Your task to perform on an android device: open device folders in google photos Image 0: 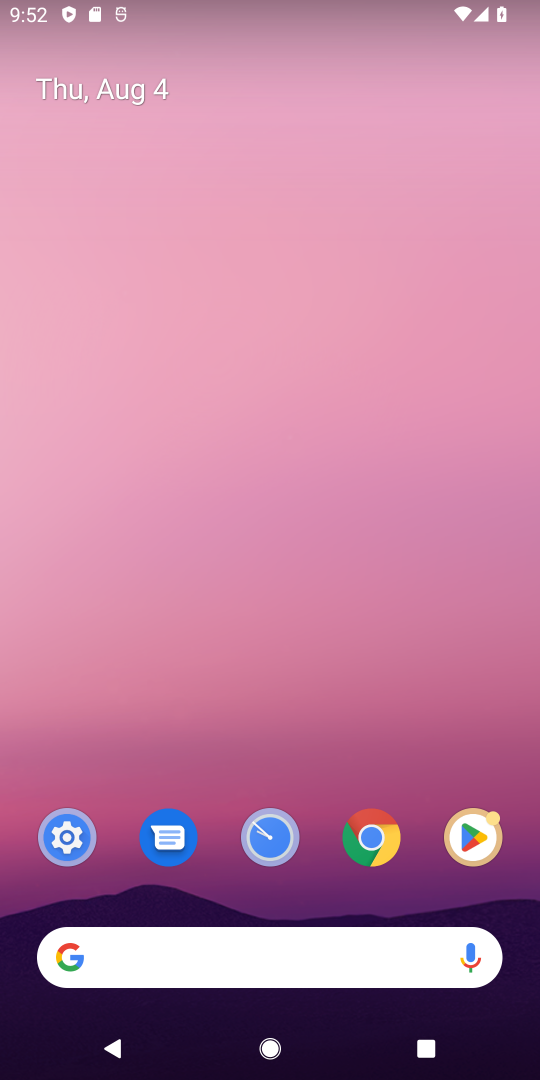
Step 0: press home button
Your task to perform on an android device: open device folders in google photos Image 1: 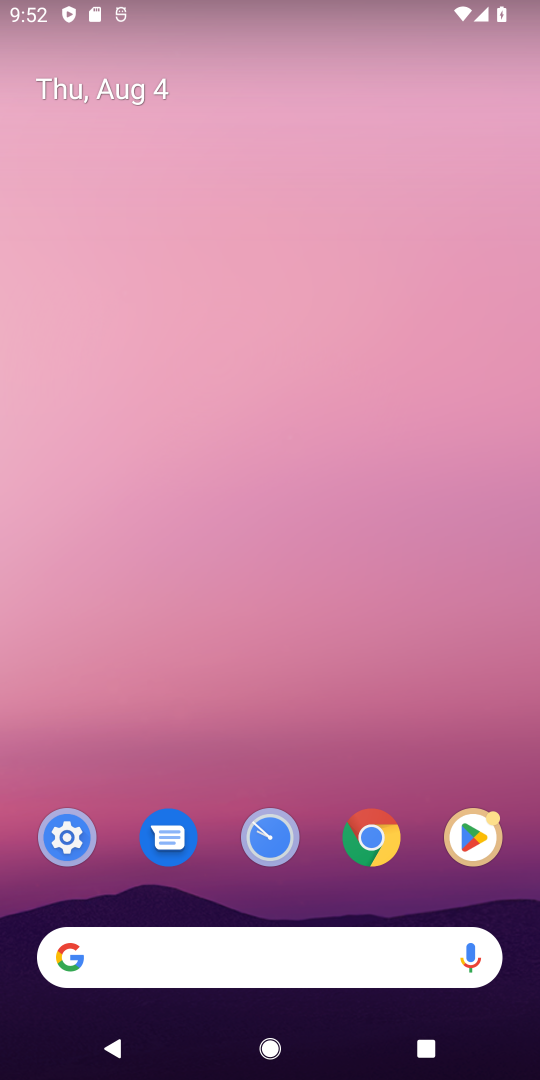
Step 1: press home button
Your task to perform on an android device: open device folders in google photos Image 2: 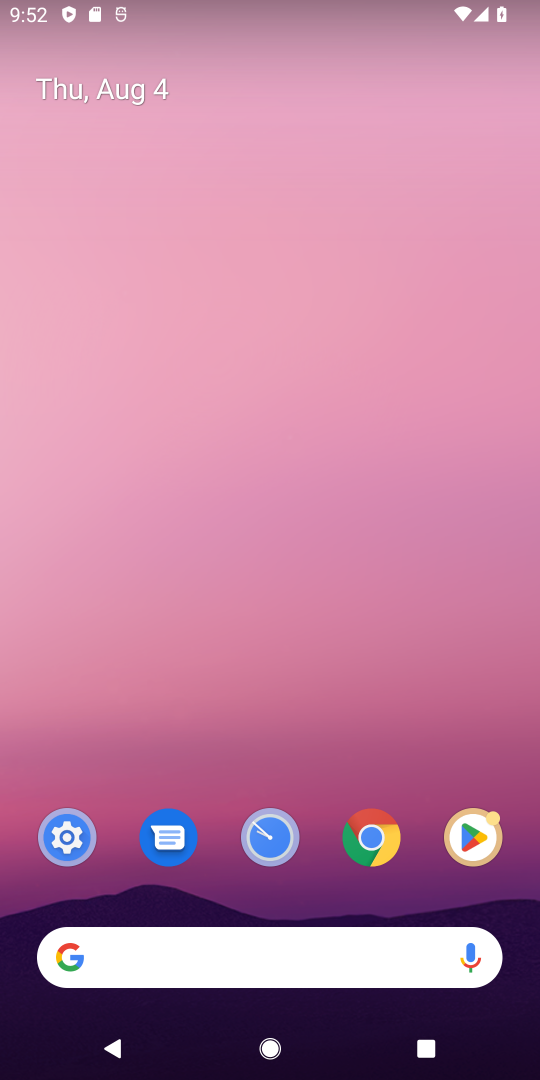
Step 2: drag from (318, 891) to (376, 115)
Your task to perform on an android device: open device folders in google photos Image 3: 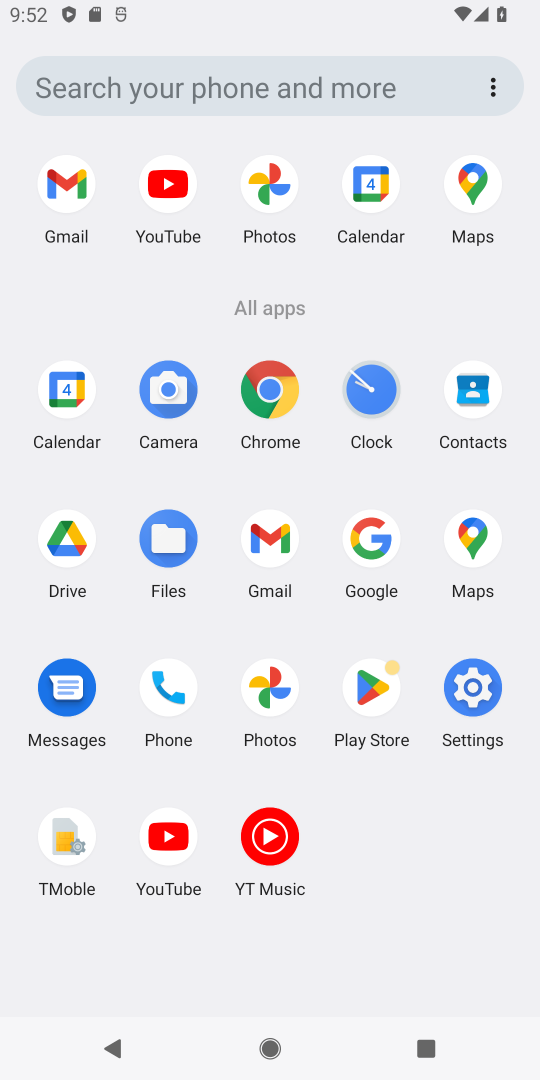
Step 3: click (266, 679)
Your task to perform on an android device: open device folders in google photos Image 4: 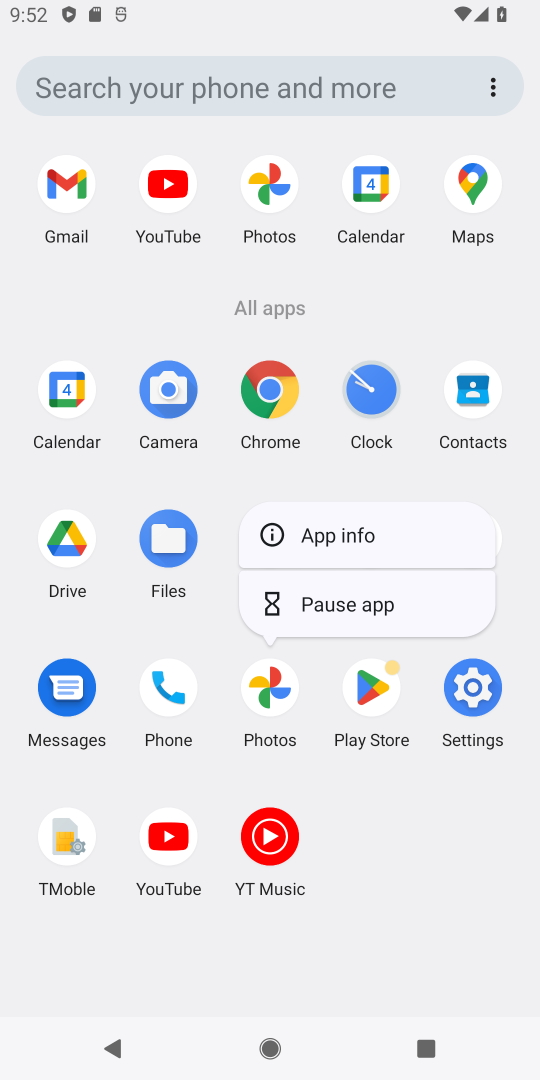
Step 4: click (269, 692)
Your task to perform on an android device: open device folders in google photos Image 5: 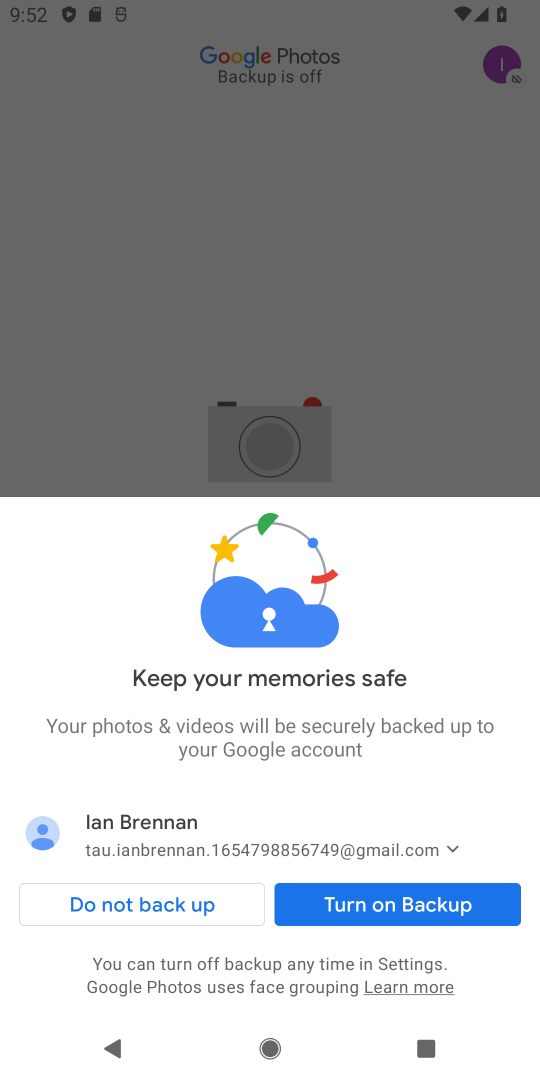
Step 5: click (380, 905)
Your task to perform on an android device: open device folders in google photos Image 6: 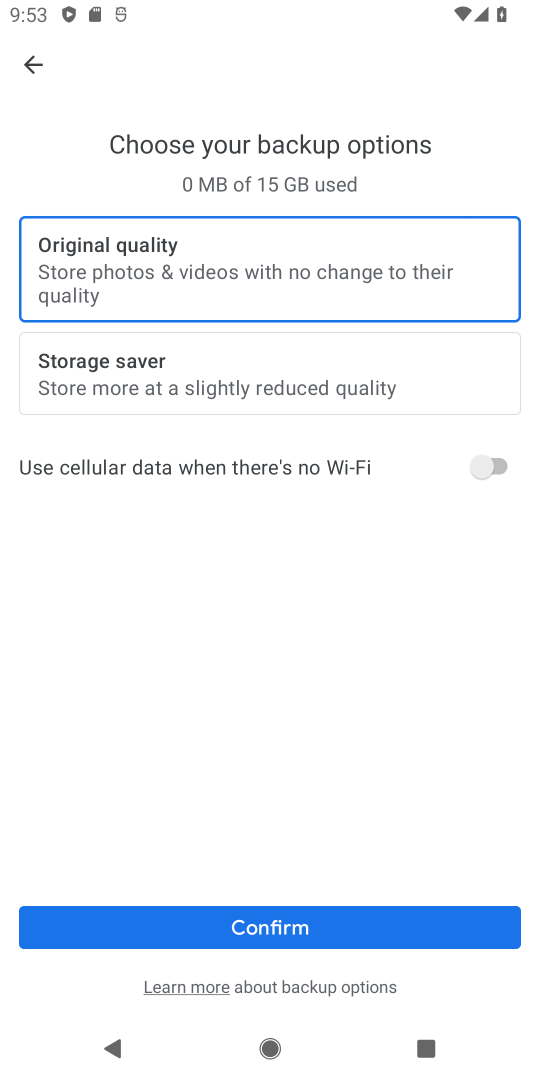
Step 6: click (292, 930)
Your task to perform on an android device: open device folders in google photos Image 7: 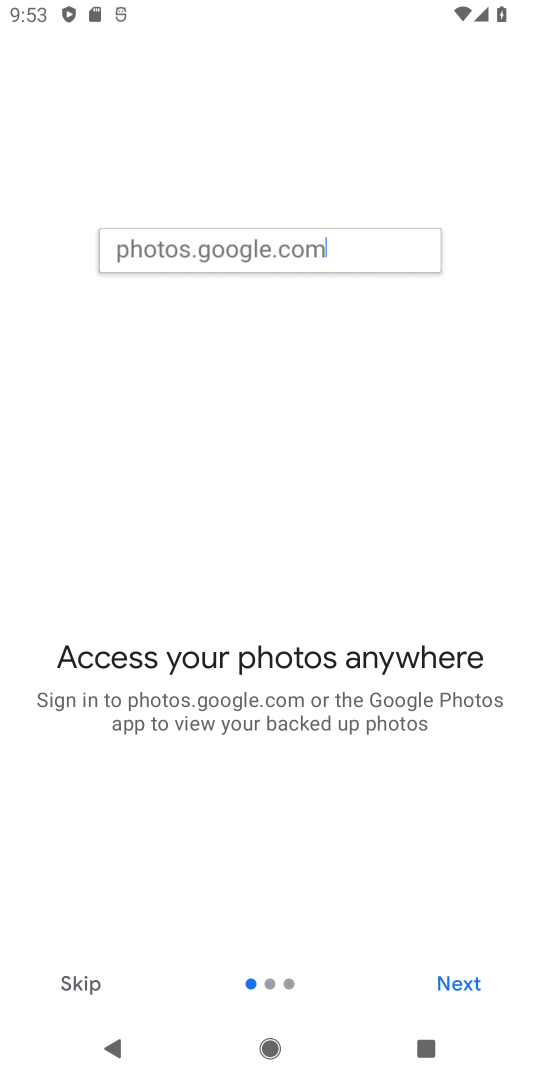
Step 7: click (71, 982)
Your task to perform on an android device: open device folders in google photos Image 8: 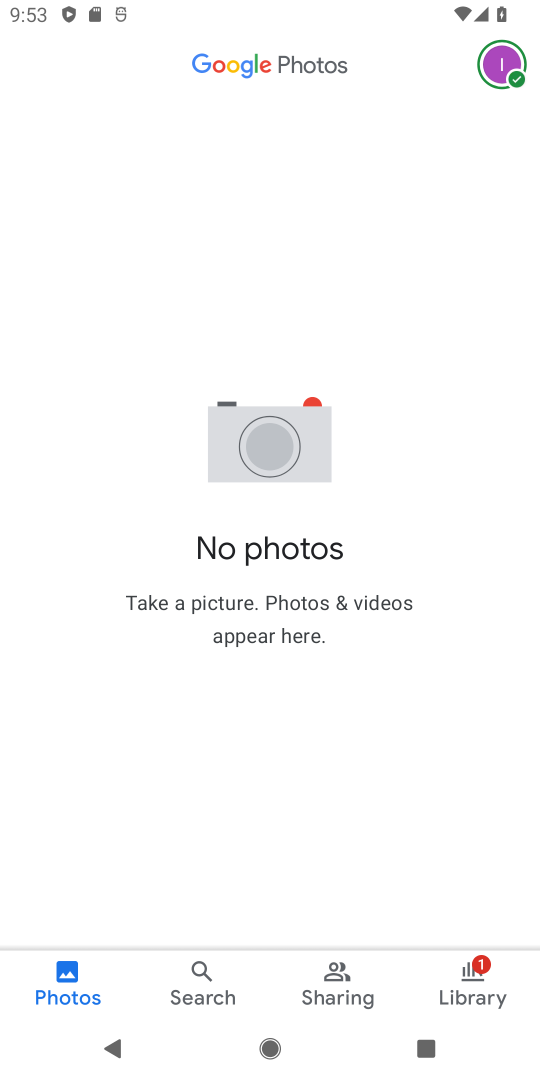
Step 8: click (197, 976)
Your task to perform on an android device: open device folders in google photos Image 9: 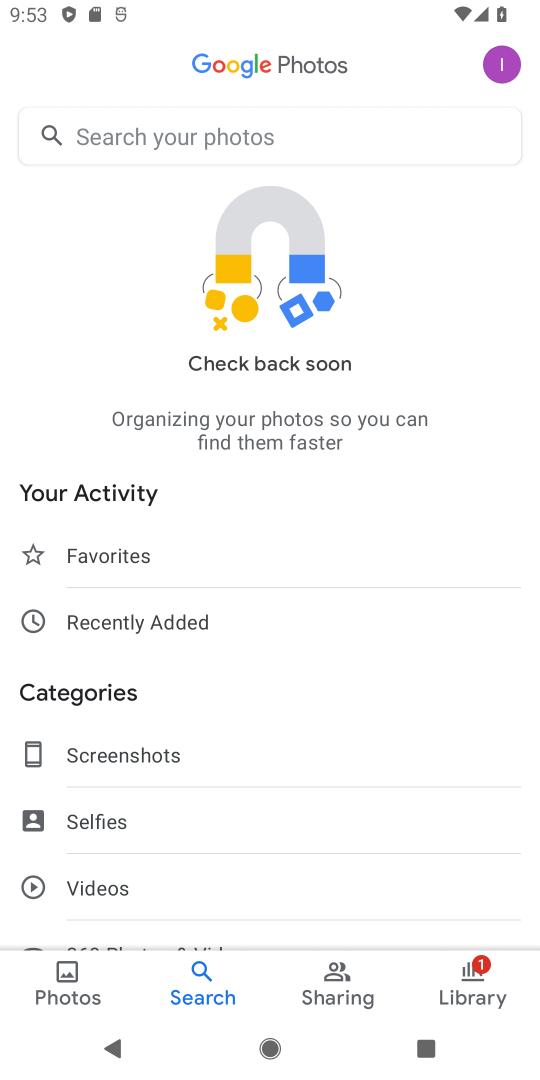
Step 9: click (130, 128)
Your task to perform on an android device: open device folders in google photos Image 10: 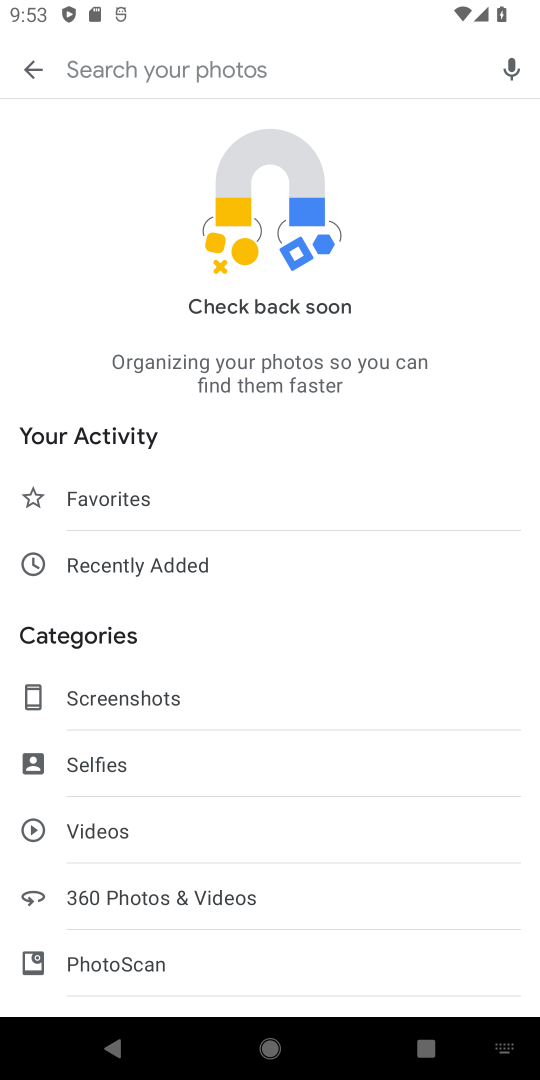
Step 10: type "device folders"
Your task to perform on an android device: open device folders in google photos Image 11: 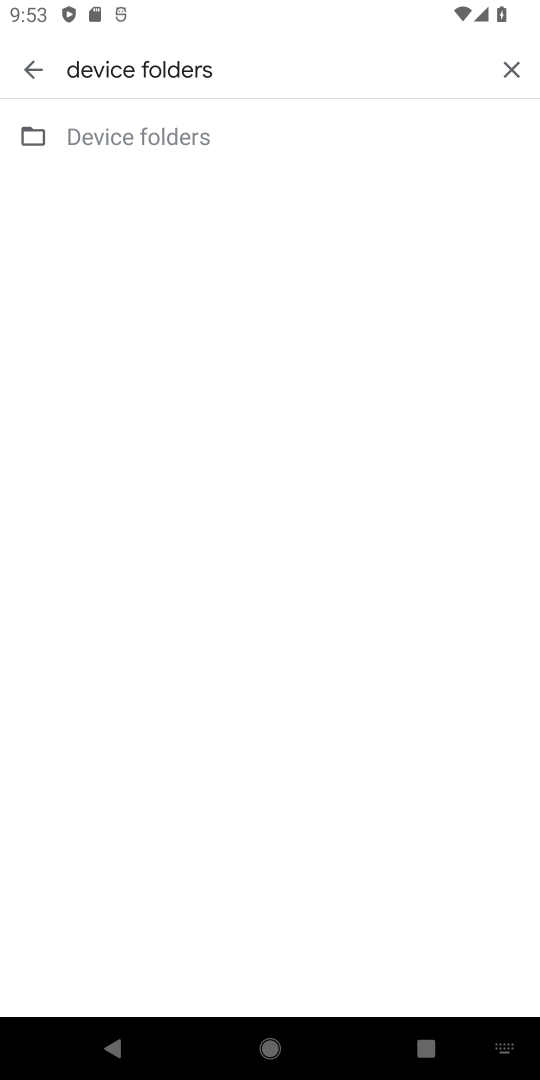
Step 11: click (194, 130)
Your task to perform on an android device: open device folders in google photos Image 12: 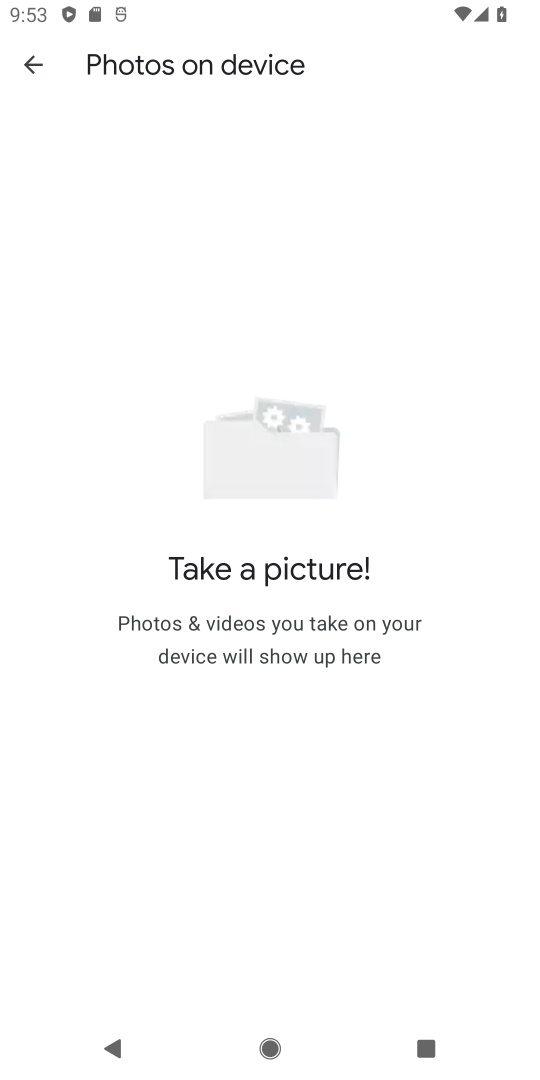
Step 12: task complete